Your task to perform on an android device: snooze an email in the gmail app Image 0: 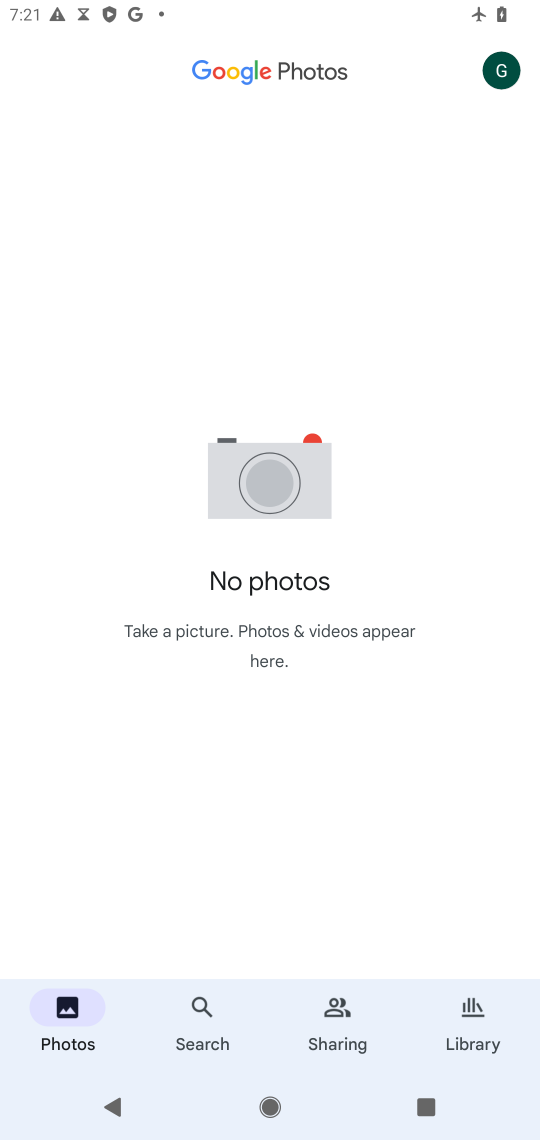
Step 0: press home button
Your task to perform on an android device: snooze an email in the gmail app Image 1: 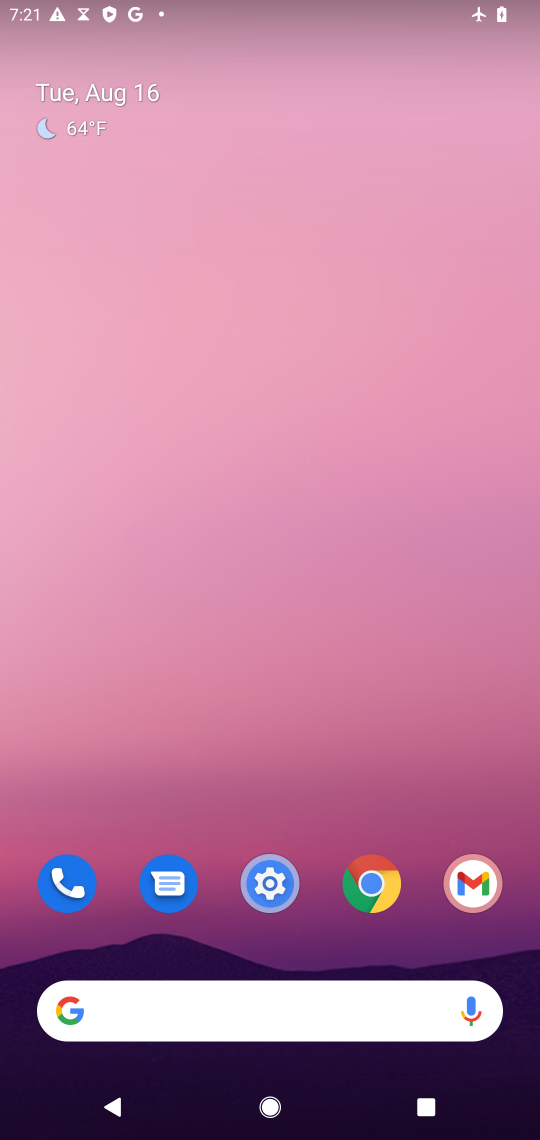
Step 1: drag from (251, 1004) to (446, 481)
Your task to perform on an android device: snooze an email in the gmail app Image 2: 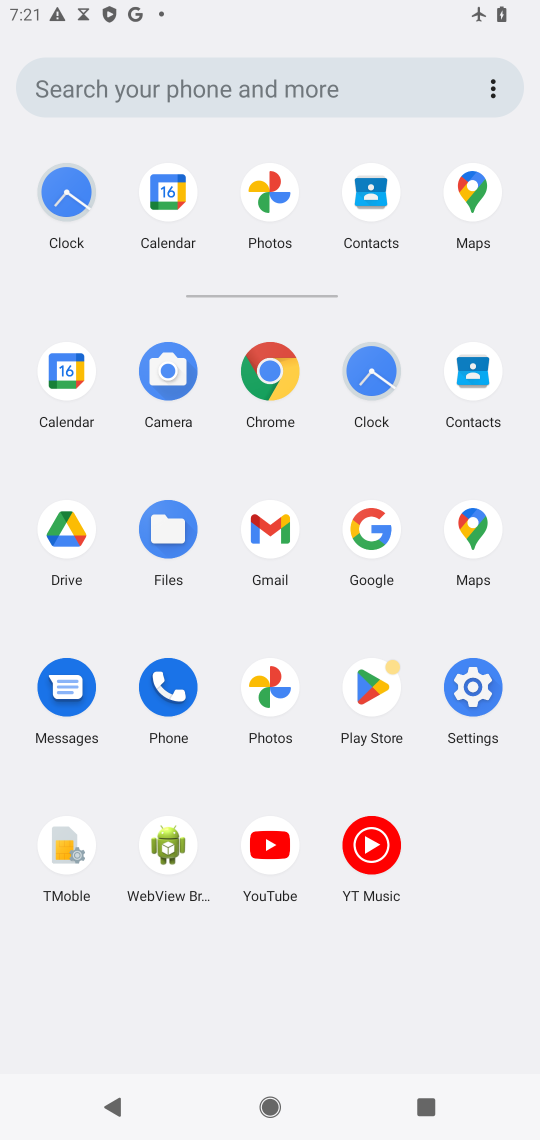
Step 2: click (271, 533)
Your task to perform on an android device: snooze an email in the gmail app Image 3: 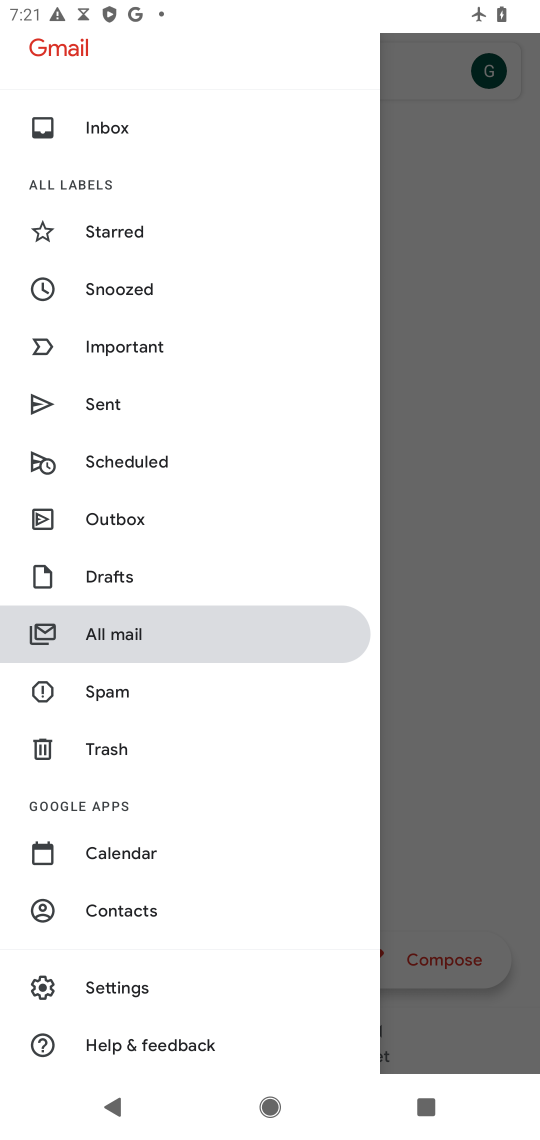
Step 3: click (115, 127)
Your task to perform on an android device: snooze an email in the gmail app Image 4: 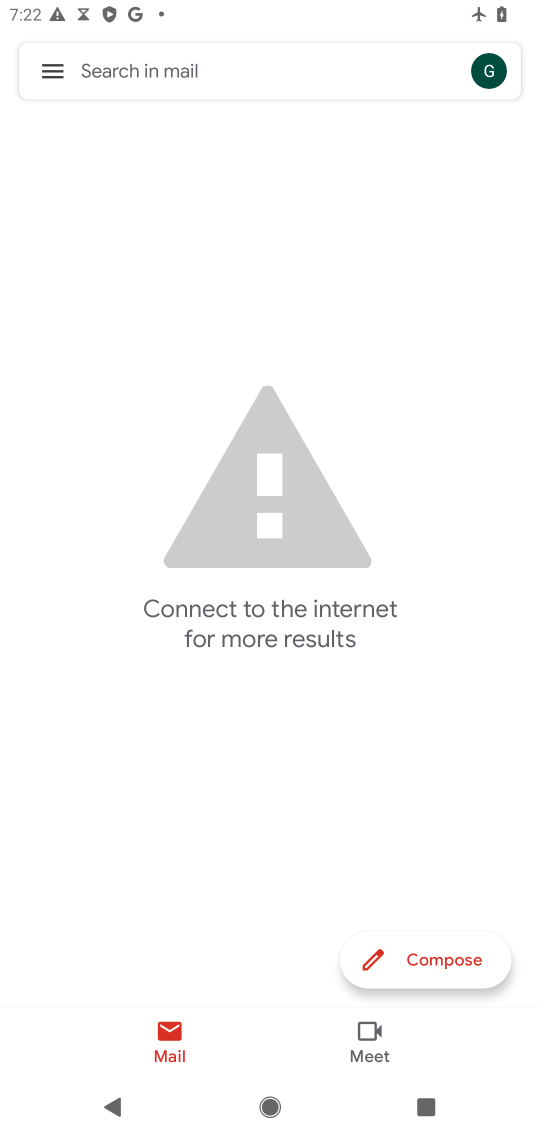
Step 4: click (59, 73)
Your task to perform on an android device: snooze an email in the gmail app Image 5: 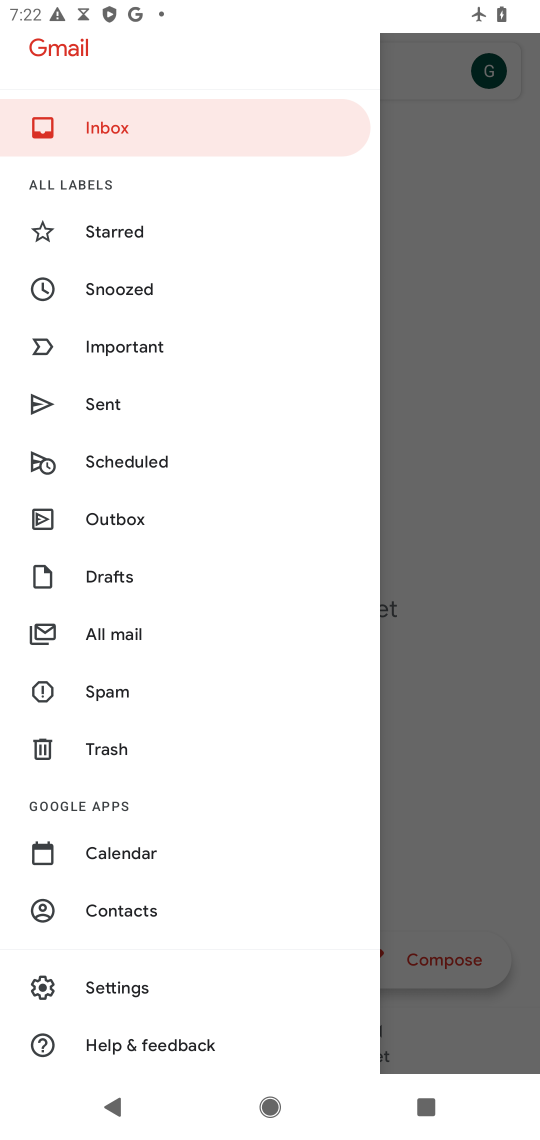
Step 5: click (127, 297)
Your task to perform on an android device: snooze an email in the gmail app Image 6: 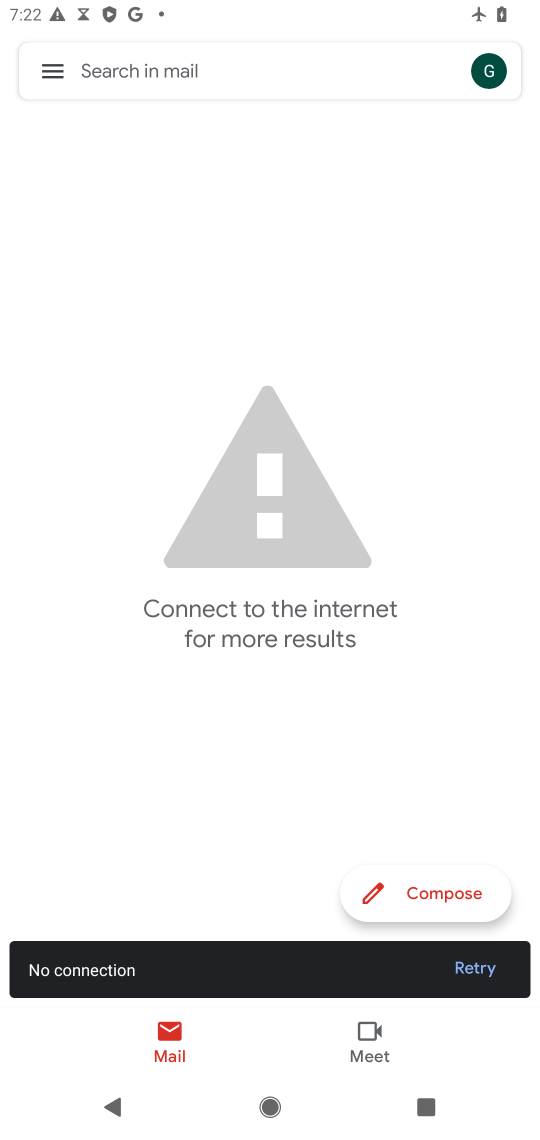
Step 6: click (54, 75)
Your task to perform on an android device: snooze an email in the gmail app Image 7: 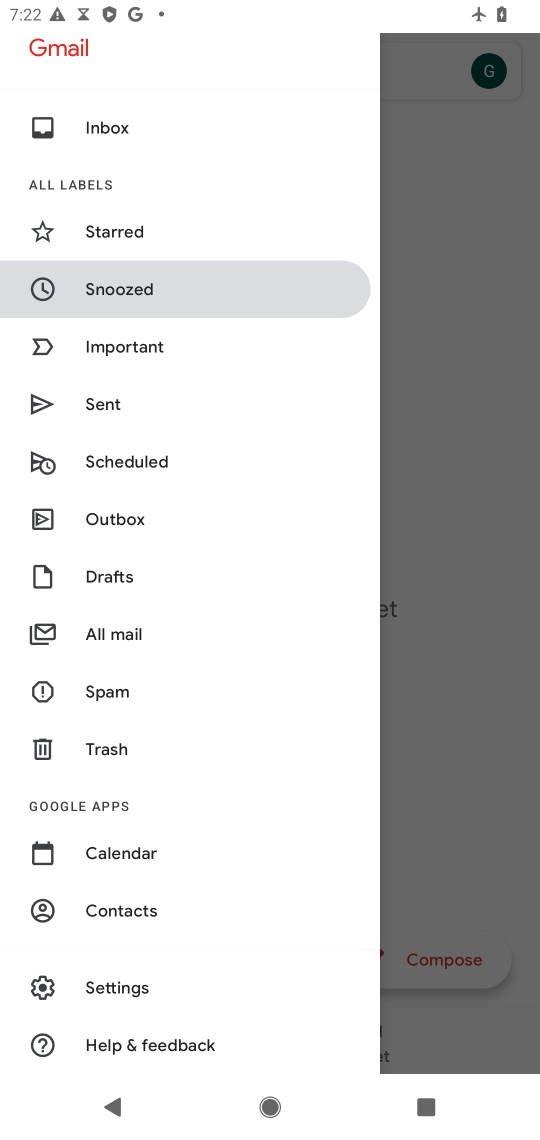
Step 7: task complete